Your task to perform on an android device: Open eBay Image 0: 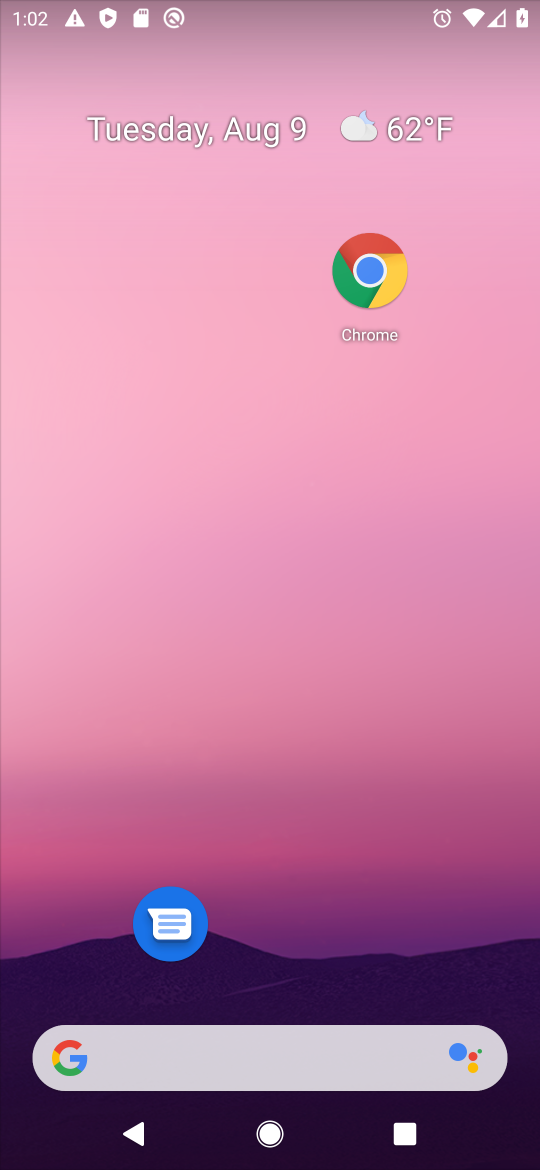
Step 0: click (212, 1054)
Your task to perform on an android device: Open eBay Image 1: 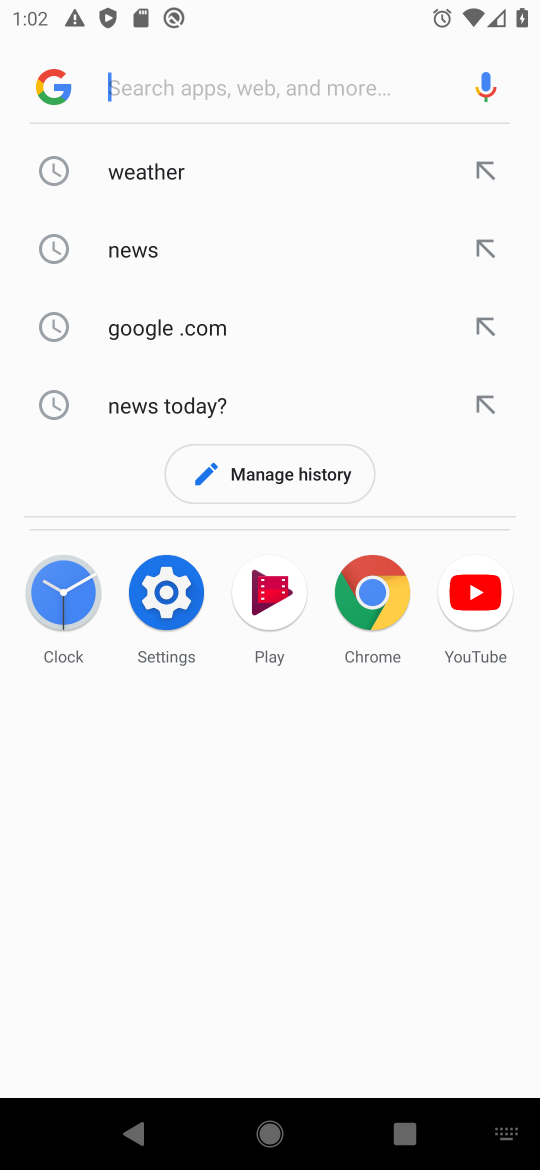
Step 1: type "ebay.com"
Your task to perform on an android device: Open eBay Image 2: 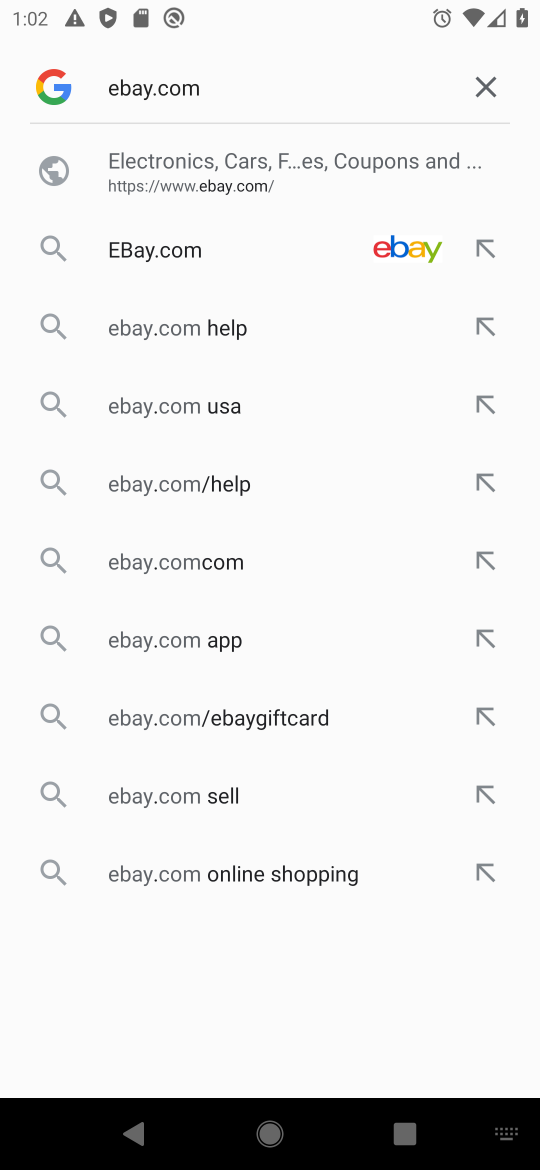
Step 2: click (223, 150)
Your task to perform on an android device: Open eBay Image 3: 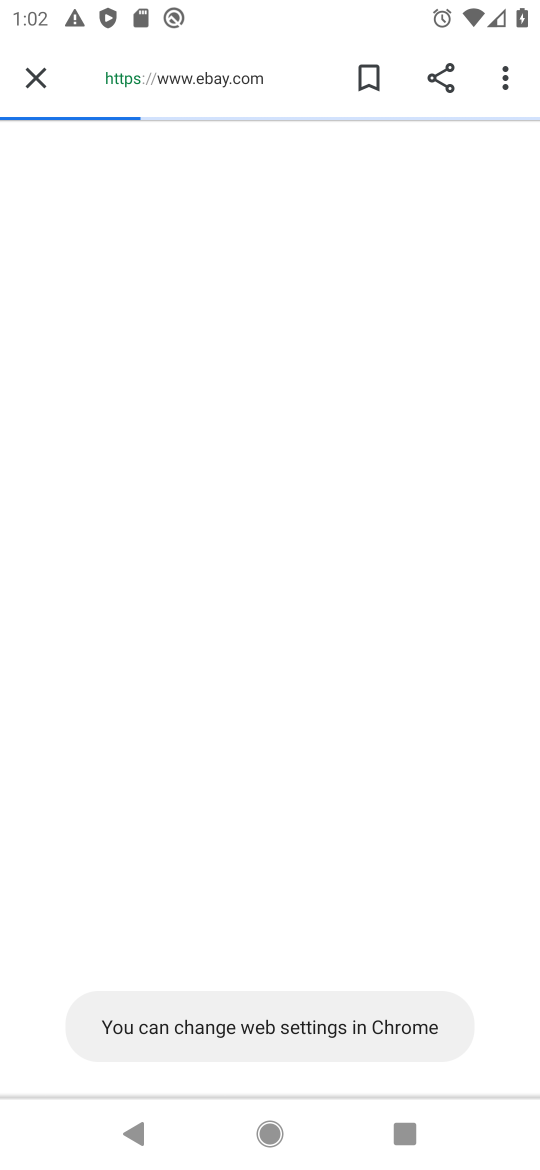
Step 3: task complete